Your task to perform on an android device: clear history in the chrome app Image 0: 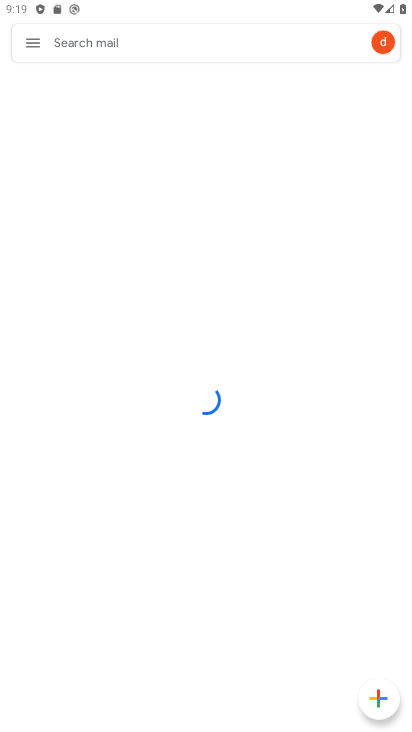
Step 0: press home button
Your task to perform on an android device: clear history in the chrome app Image 1: 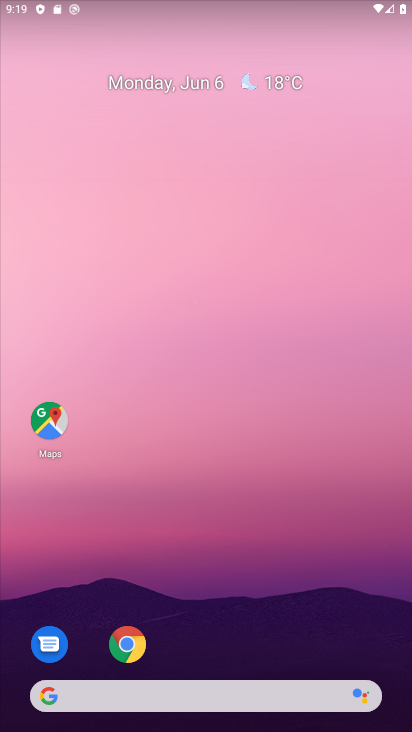
Step 1: drag from (331, 590) to (327, 192)
Your task to perform on an android device: clear history in the chrome app Image 2: 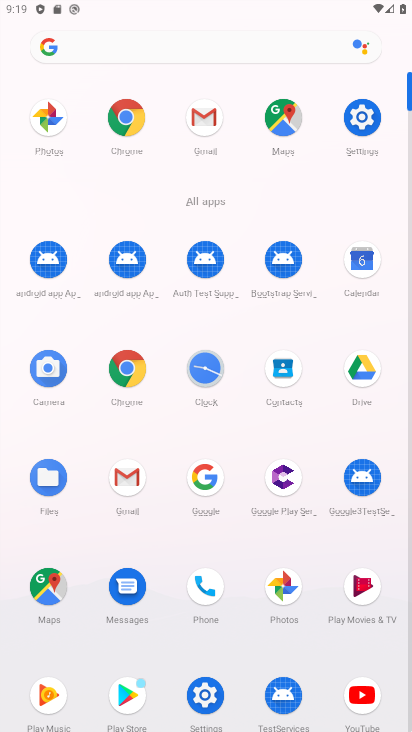
Step 2: click (126, 368)
Your task to perform on an android device: clear history in the chrome app Image 3: 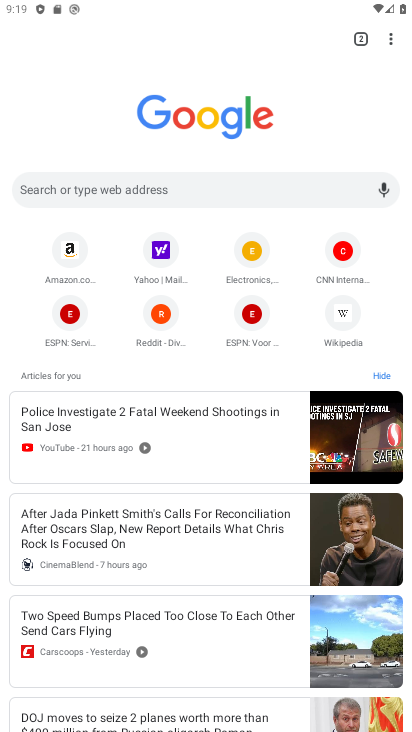
Step 3: drag from (396, 43) to (232, 219)
Your task to perform on an android device: clear history in the chrome app Image 4: 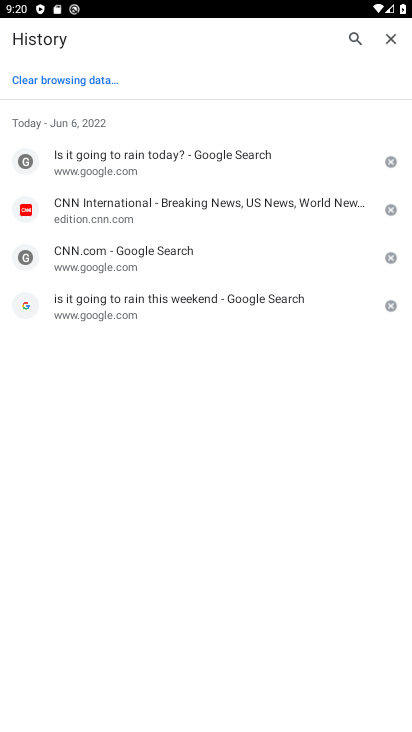
Step 4: click (62, 79)
Your task to perform on an android device: clear history in the chrome app Image 5: 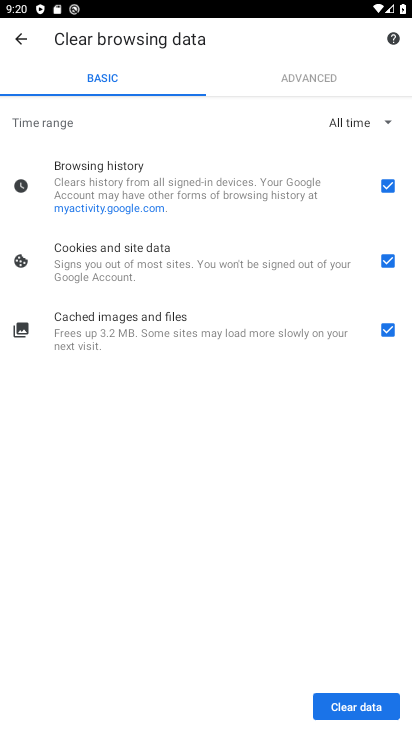
Step 5: click (376, 711)
Your task to perform on an android device: clear history in the chrome app Image 6: 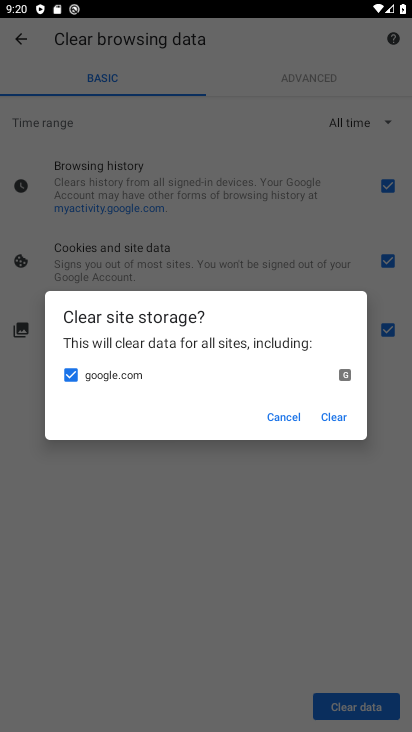
Step 6: click (324, 421)
Your task to perform on an android device: clear history in the chrome app Image 7: 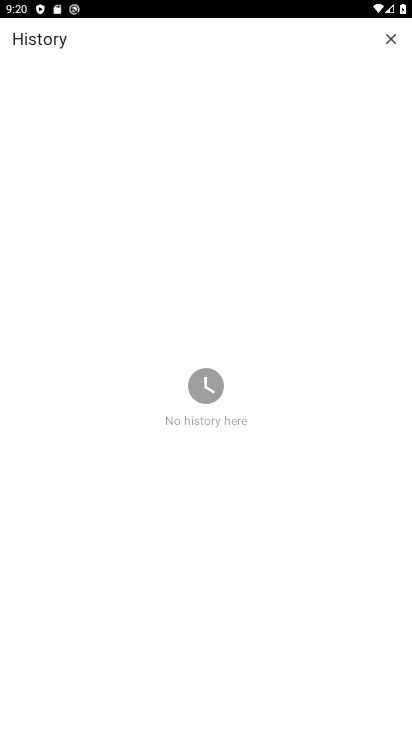
Step 7: task complete